Your task to perform on an android device: turn on improve location accuracy Image 0: 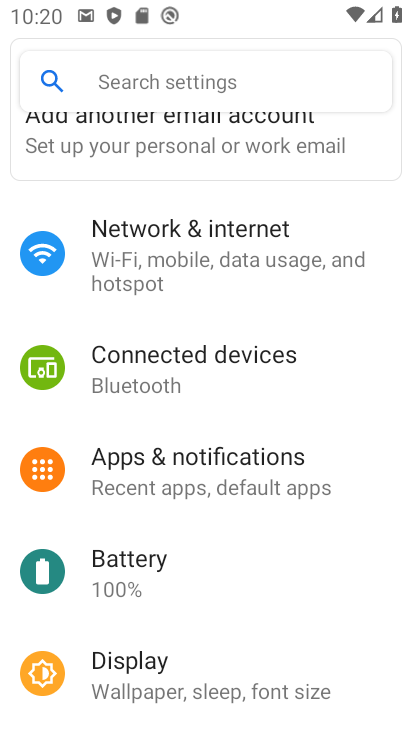
Step 0: press home button
Your task to perform on an android device: turn on improve location accuracy Image 1: 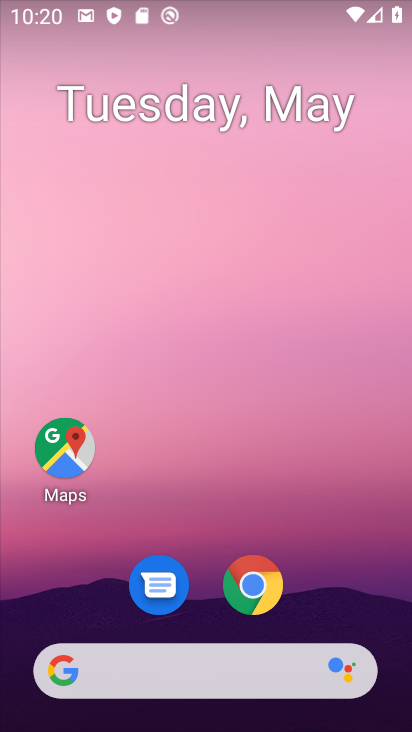
Step 1: drag from (286, 526) to (274, 101)
Your task to perform on an android device: turn on improve location accuracy Image 2: 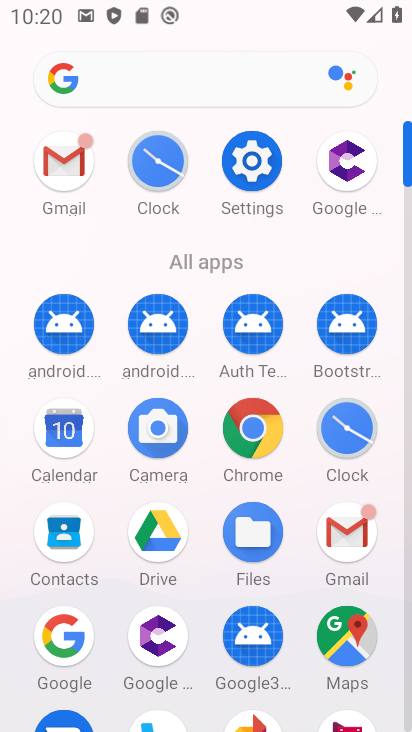
Step 2: click (257, 166)
Your task to perform on an android device: turn on improve location accuracy Image 3: 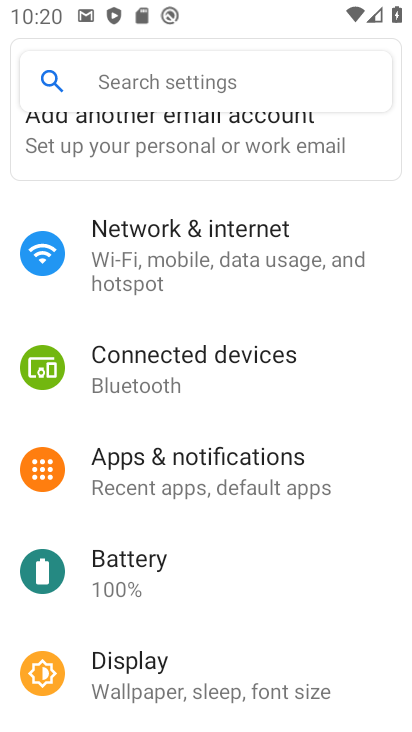
Step 3: drag from (244, 603) to (302, 17)
Your task to perform on an android device: turn on improve location accuracy Image 4: 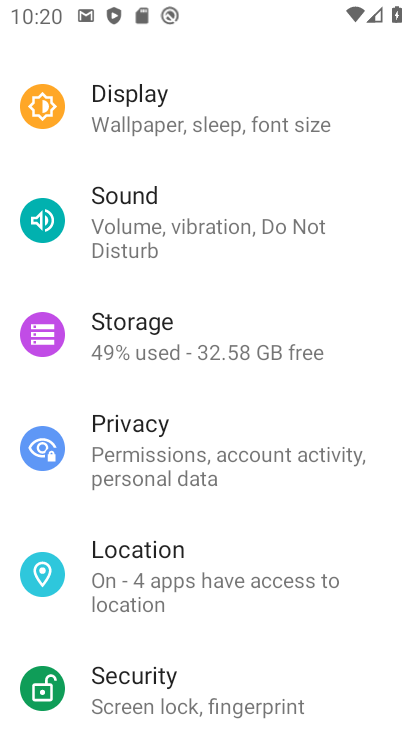
Step 4: click (213, 570)
Your task to perform on an android device: turn on improve location accuracy Image 5: 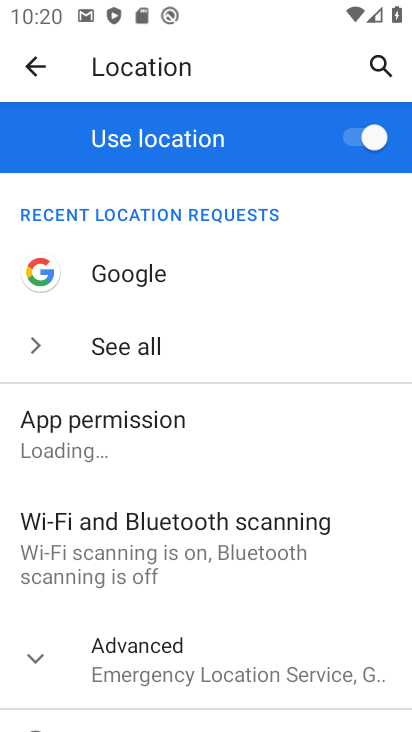
Step 5: drag from (207, 634) to (234, 365)
Your task to perform on an android device: turn on improve location accuracy Image 6: 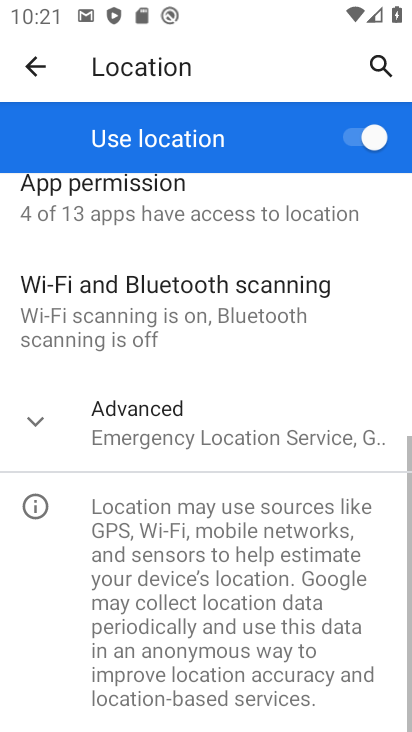
Step 6: click (41, 421)
Your task to perform on an android device: turn on improve location accuracy Image 7: 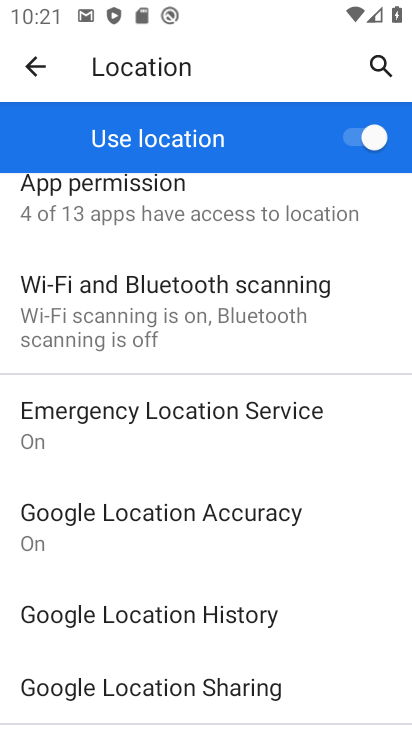
Step 7: task complete